Your task to perform on an android device: Open the map Image 0: 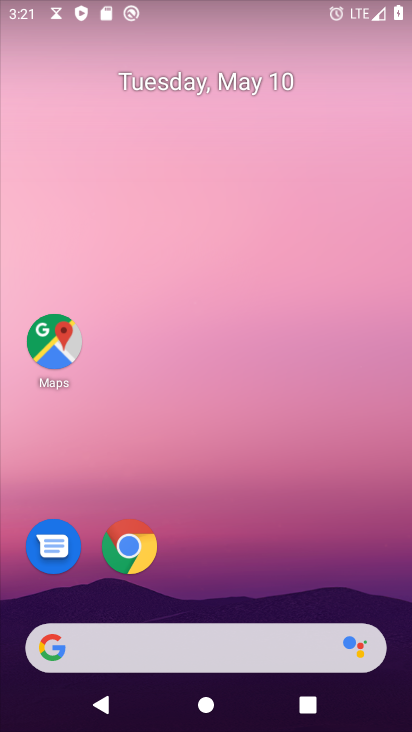
Step 0: click (66, 364)
Your task to perform on an android device: Open the map Image 1: 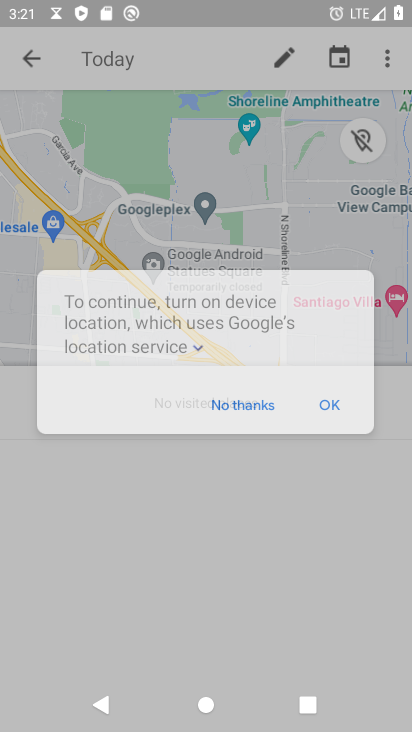
Step 1: click (25, 61)
Your task to perform on an android device: Open the map Image 2: 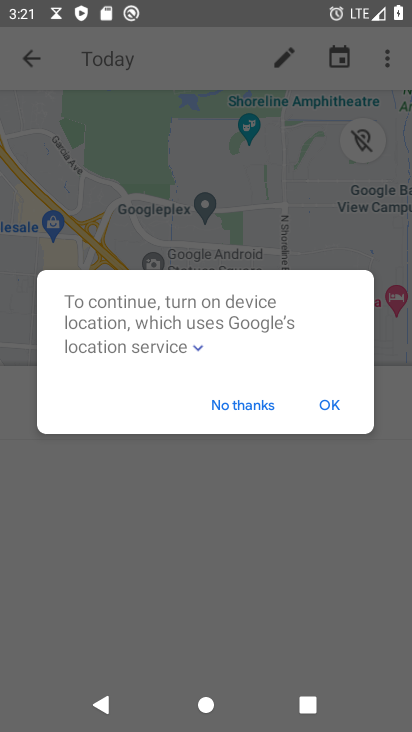
Step 2: click (266, 403)
Your task to perform on an android device: Open the map Image 3: 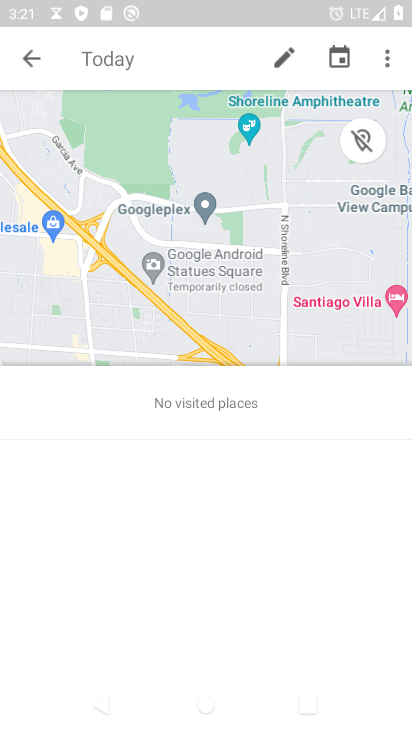
Step 3: click (40, 55)
Your task to perform on an android device: Open the map Image 4: 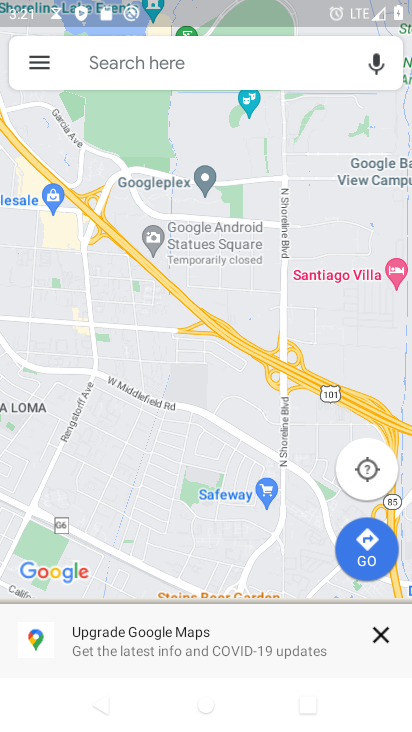
Step 4: task complete